Your task to perform on an android device: Go to Android settings Image 0: 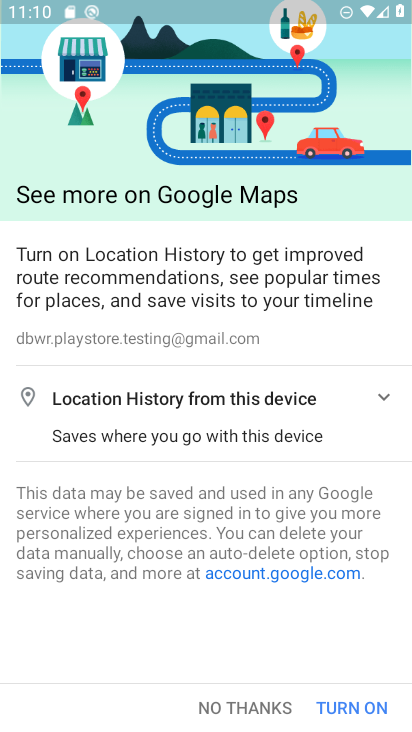
Step 0: press home button
Your task to perform on an android device: Go to Android settings Image 1: 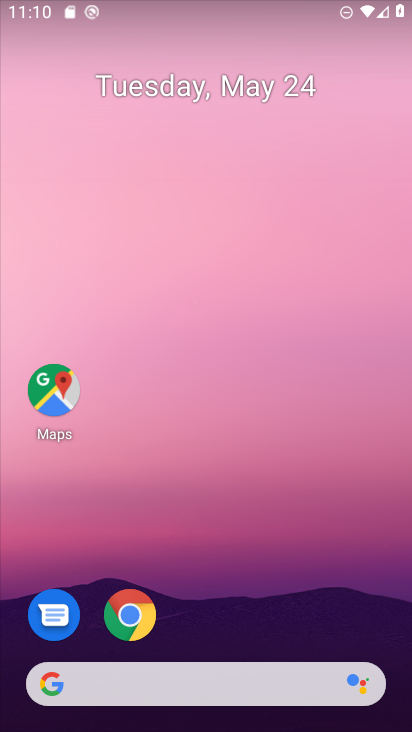
Step 1: drag from (263, 705) to (383, 96)
Your task to perform on an android device: Go to Android settings Image 2: 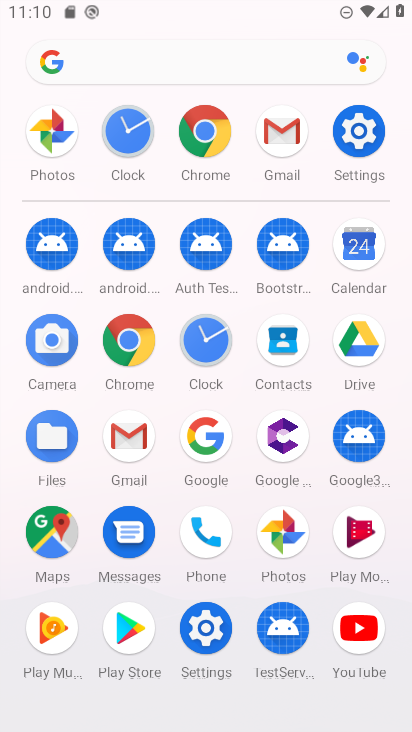
Step 2: click (360, 116)
Your task to perform on an android device: Go to Android settings Image 3: 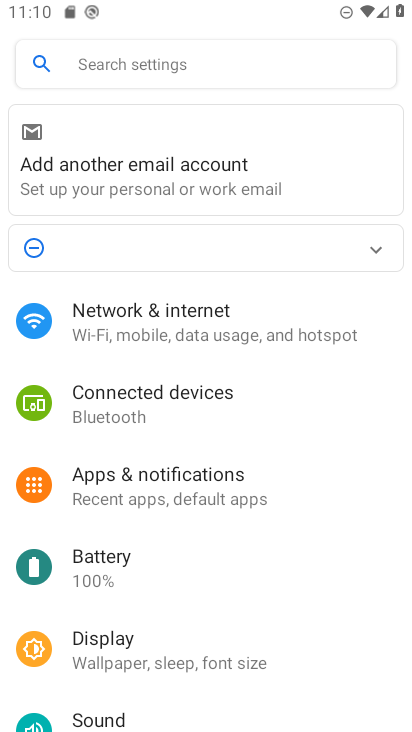
Step 3: click (128, 56)
Your task to perform on an android device: Go to Android settings Image 4: 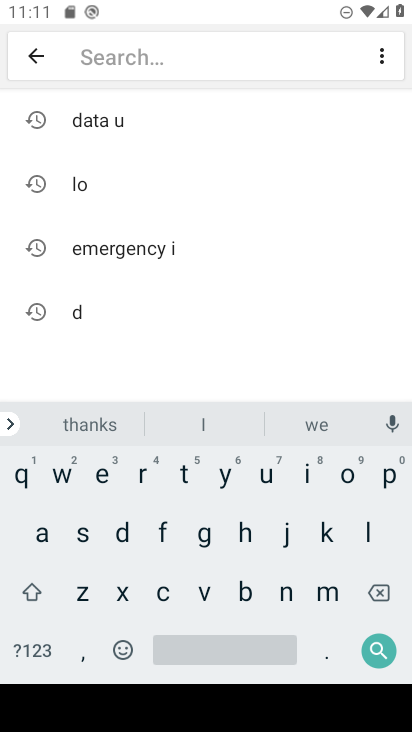
Step 4: click (41, 533)
Your task to perform on an android device: Go to Android settings Image 5: 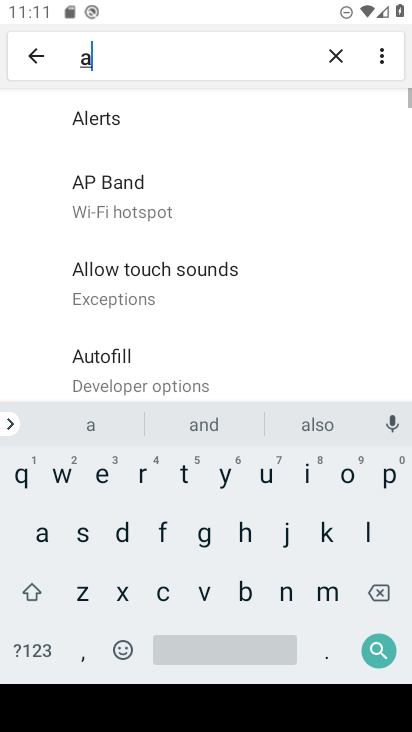
Step 5: click (295, 591)
Your task to perform on an android device: Go to Android settings Image 6: 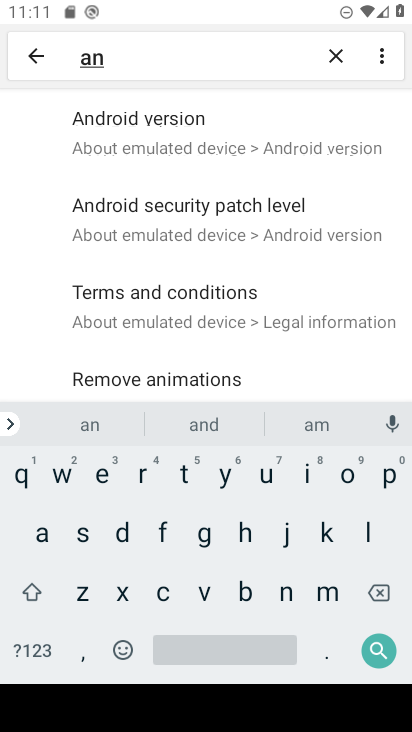
Step 6: click (169, 122)
Your task to perform on an android device: Go to Android settings Image 7: 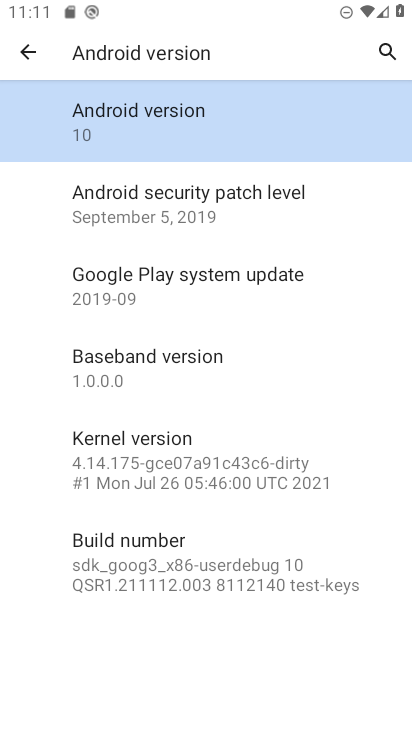
Step 7: click (163, 126)
Your task to perform on an android device: Go to Android settings Image 8: 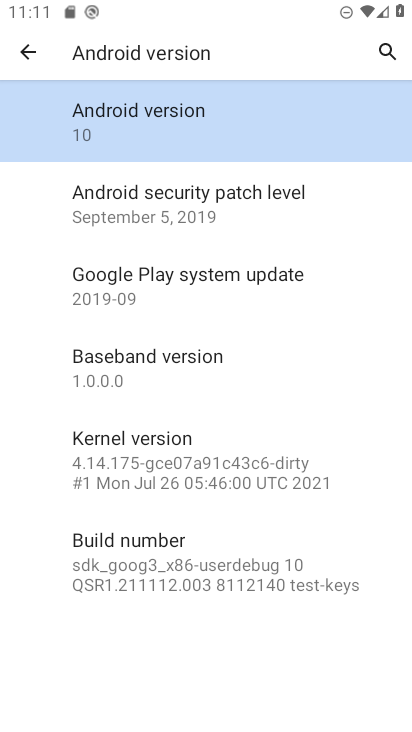
Step 8: task complete